Your task to perform on an android device: star an email in the gmail app Image 0: 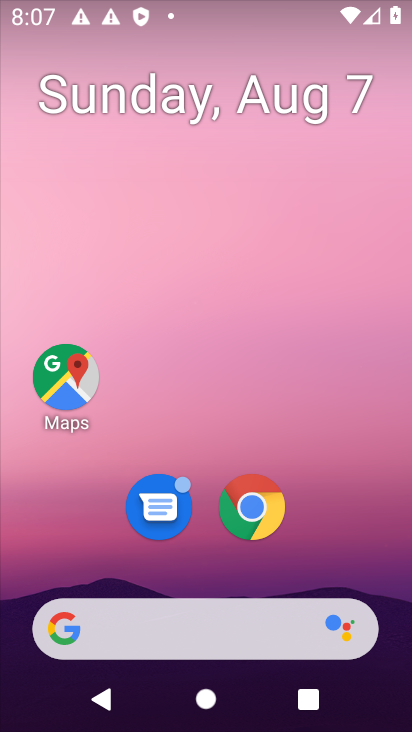
Step 0: press home button
Your task to perform on an android device: star an email in the gmail app Image 1: 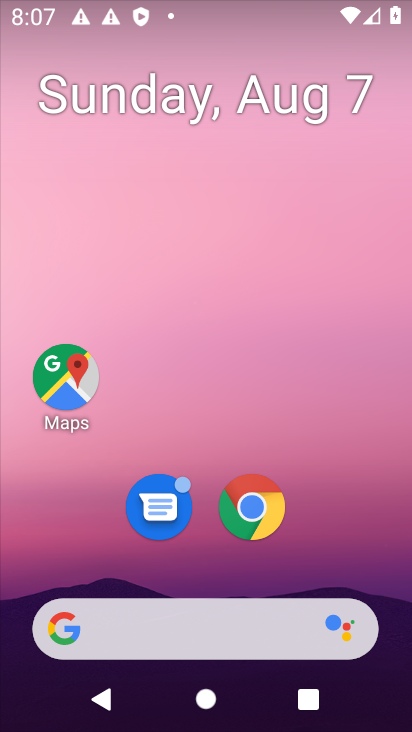
Step 1: drag from (170, 614) to (316, 67)
Your task to perform on an android device: star an email in the gmail app Image 2: 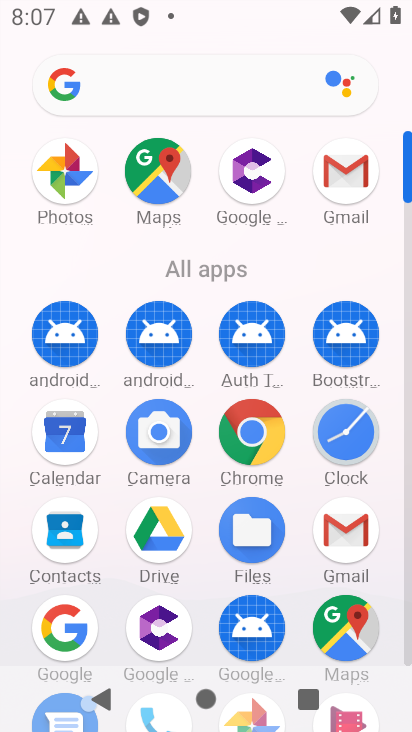
Step 2: click (355, 184)
Your task to perform on an android device: star an email in the gmail app Image 3: 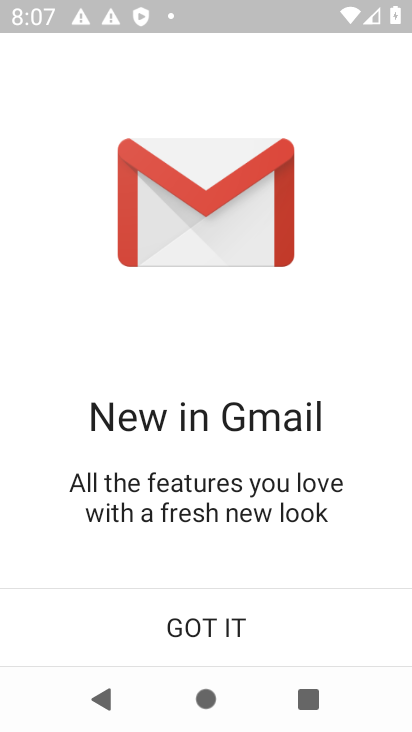
Step 3: click (236, 623)
Your task to perform on an android device: star an email in the gmail app Image 4: 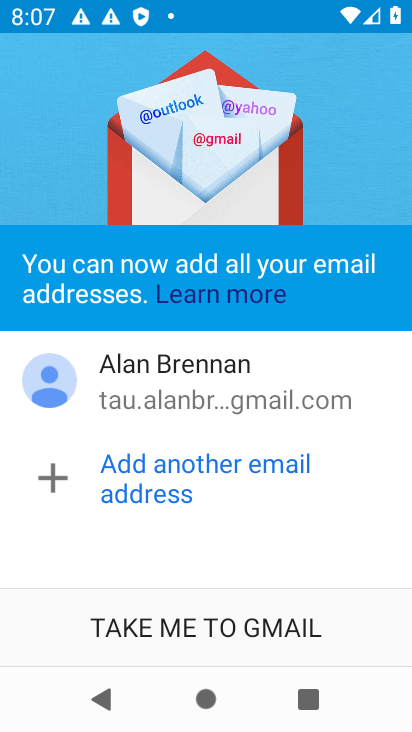
Step 4: click (196, 623)
Your task to perform on an android device: star an email in the gmail app Image 5: 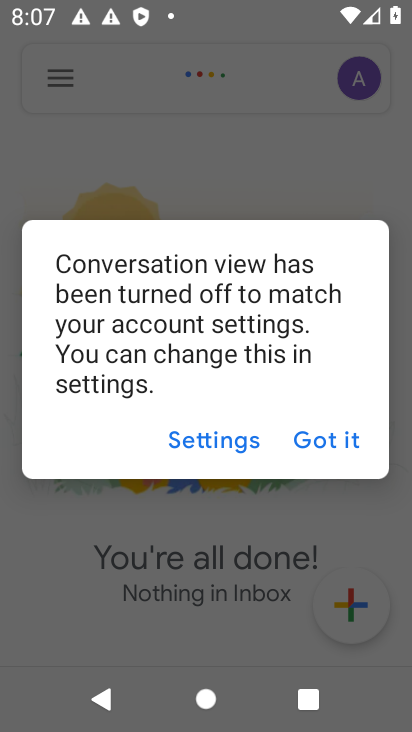
Step 5: click (226, 626)
Your task to perform on an android device: star an email in the gmail app Image 6: 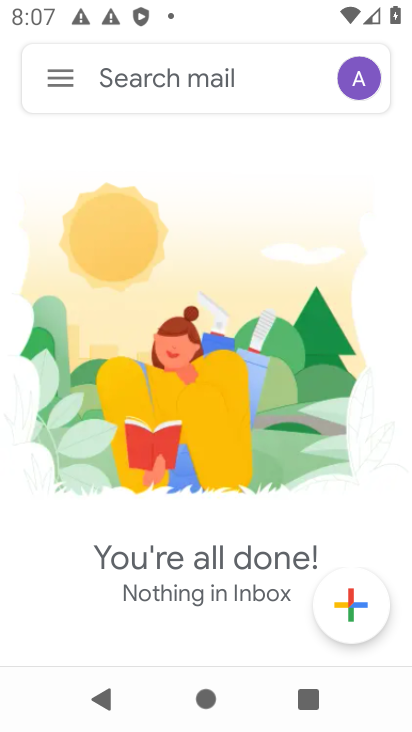
Step 6: click (52, 70)
Your task to perform on an android device: star an email in the gmail app Image 7: 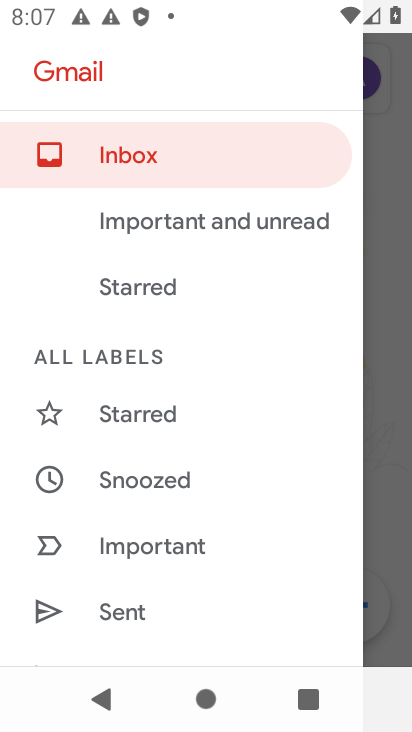
Step 7: drag from (241, 545) to (347, 90)
Your task to perform on an android device: star an email in the gmail app Image 8: 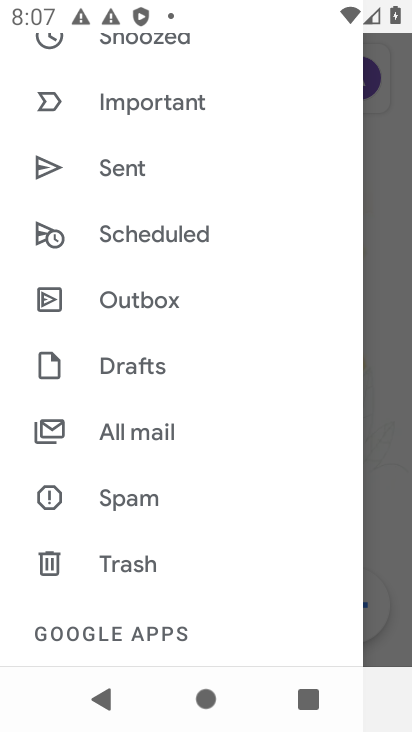
Step 8: click (164, 429)
Your task to perform on an android device: star an email in the gmail app Image 9: 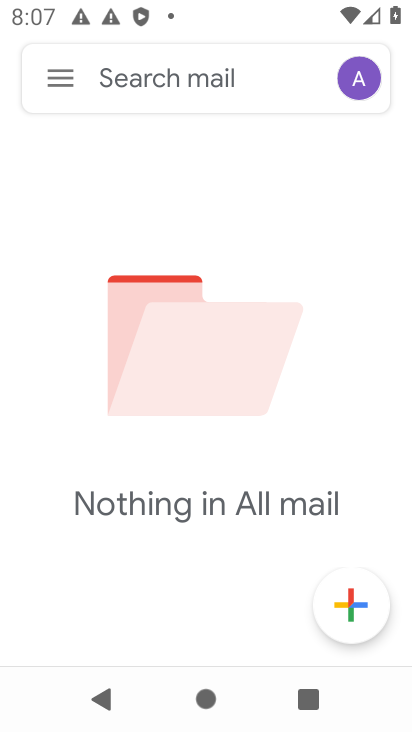
Step 9: task complete